Your task to perform on an android device: see tabs open on other devices in the chrome app Image 0: 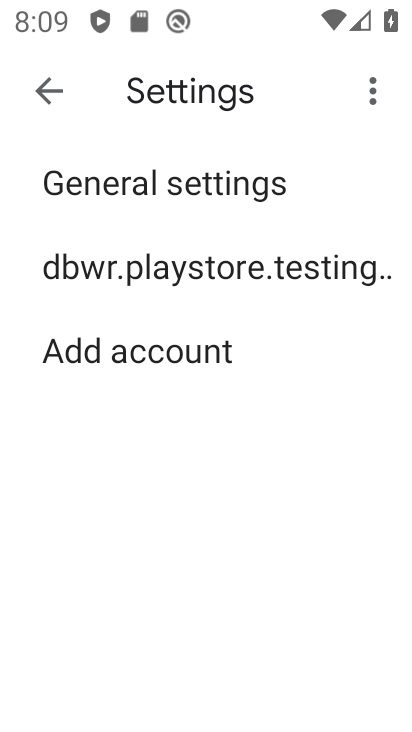
Step 0: press home button
Your task to perform on an android device: see tabs open on other devices in the chrome app Image 1: 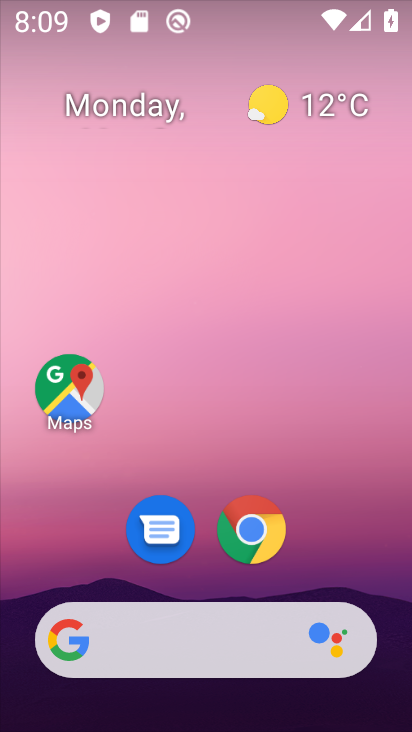
Step 1: click (260, 516)
Your task to perform on an android device: see tabs open on other devices in the chrome app Image 2: 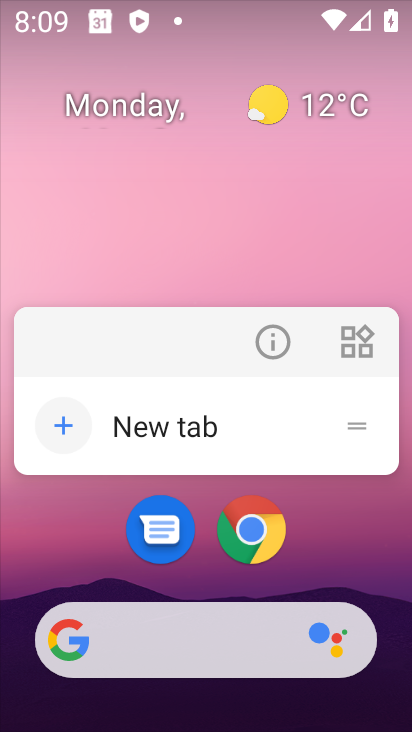
Step 2: click (250, 525)
Your task to perform on an android device: see tabs open on other devices in the chrome app Image 3: 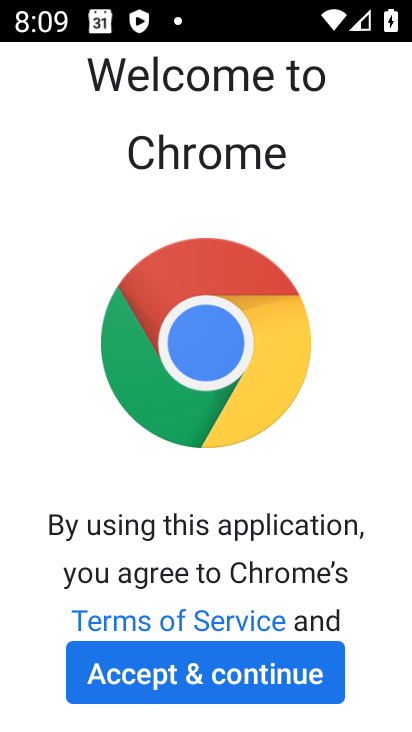
Step 3: click (272, 676)
Your task to perform on an android device: see tabs open on other devices in the chrome app Image 4: 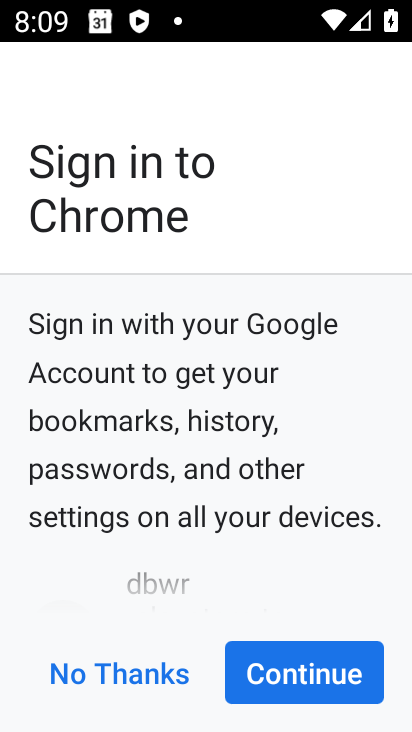
Step 4: click (272, 676)
Your task to perform on an android device: see tabs open on other devices in the chrome app Image 5: 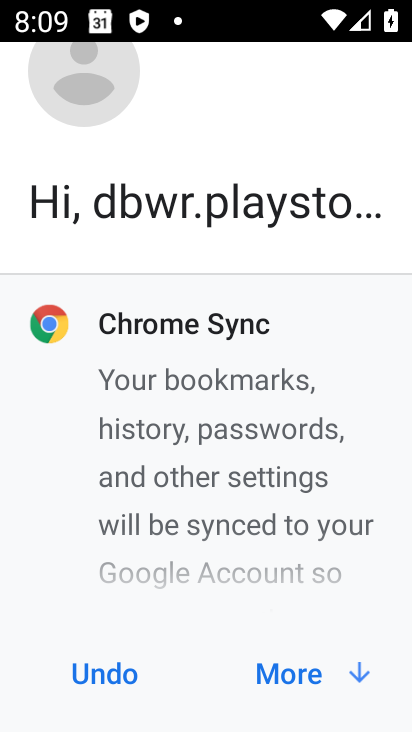
Step 5: click (272, 676)
Your task to perform on an android device: see tabs open on other devices in the chrome app Image 6: 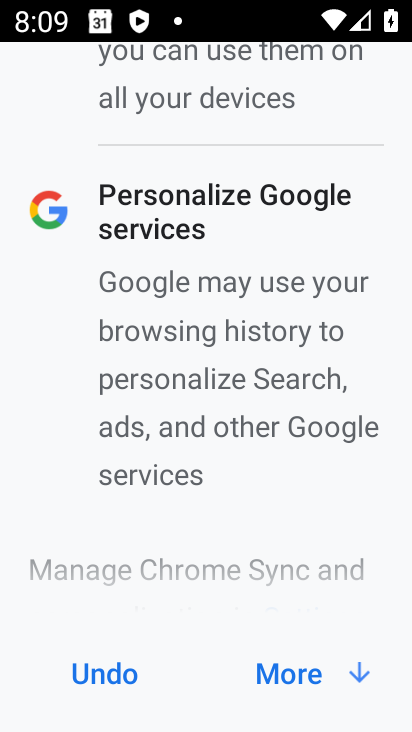
Step 6: click (343, 673)
Your task to perform on an android device: see tabs open on other devices in the chrome app Image 7: 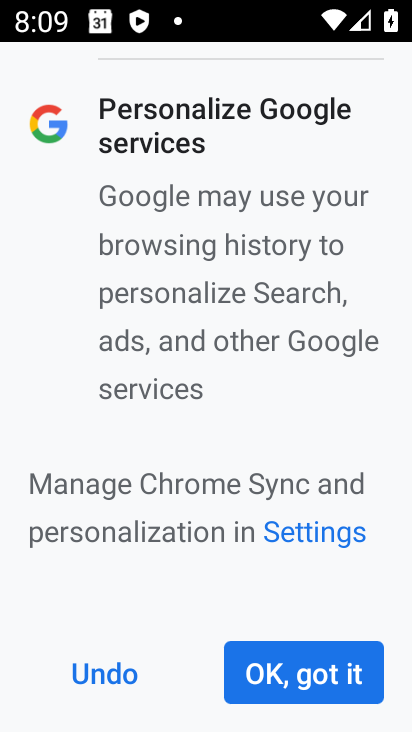
Step 7: click (289, 673)
Your task to perform on an android device: see tabs open on other devices in the chrome app Image 8: 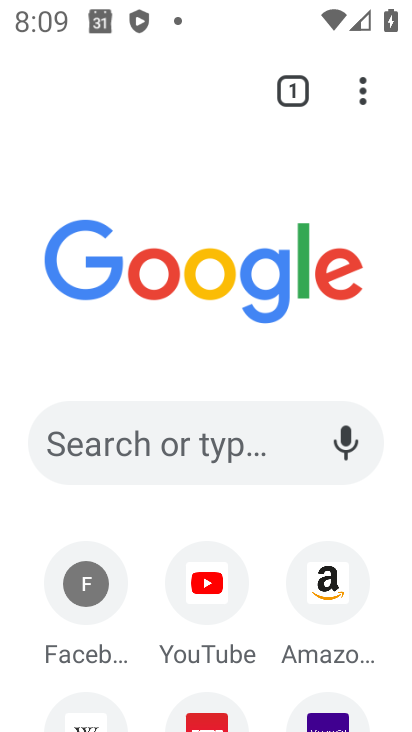
Step 8: click (356, 90)
Your task to perform on an android device: see tabs open on other devices in the chrome app Image 9: 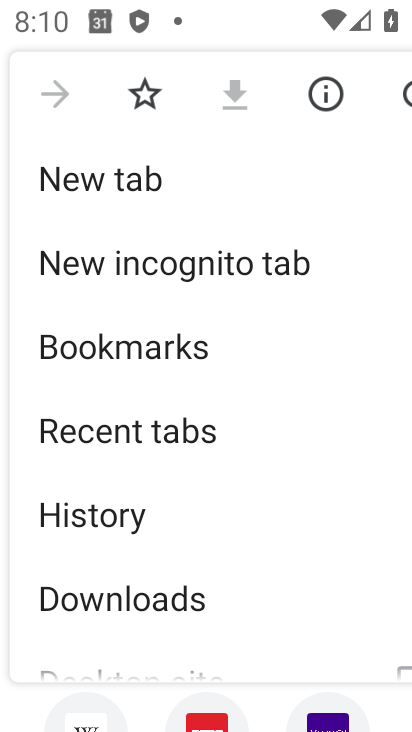
Step 9: click (137, 438)
Your task to perform on an android device: see tabs open on other devices in the chrome app Image 10: 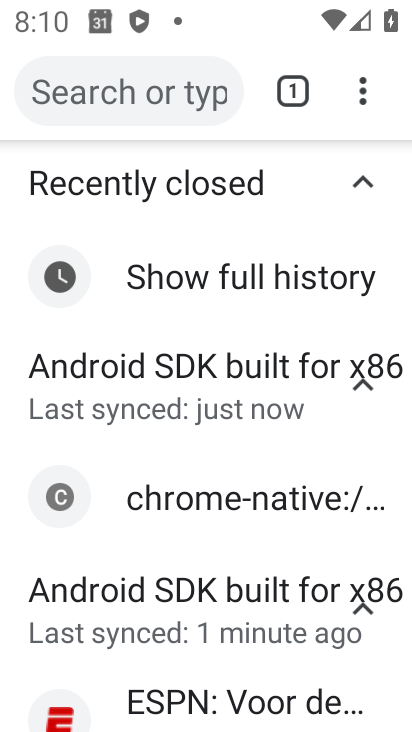
Step 10: task complete